Your task to perform on an android device: View the shopping cart on ebay.com. Image 0: 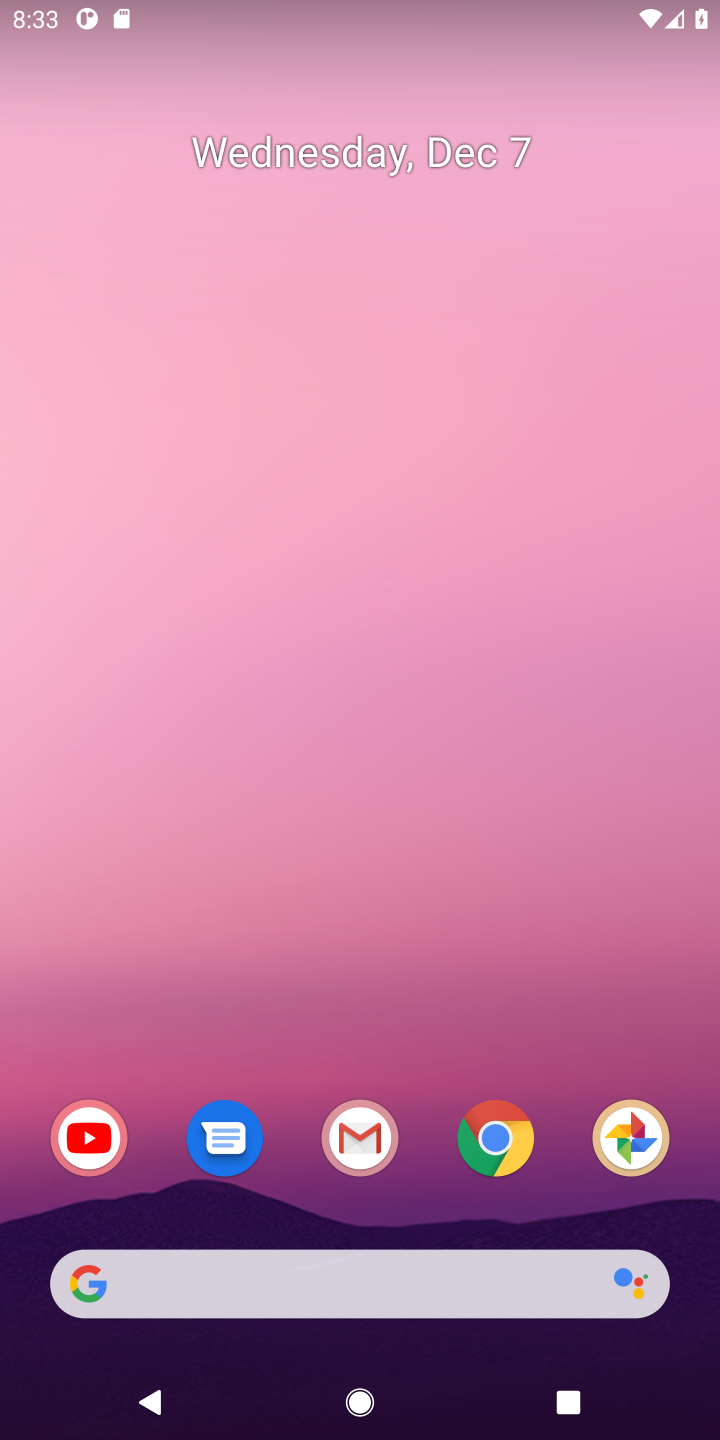
Step 0: press home button
Your task to perform on an android device: View the shopping cart on ebay.com. Image 1: 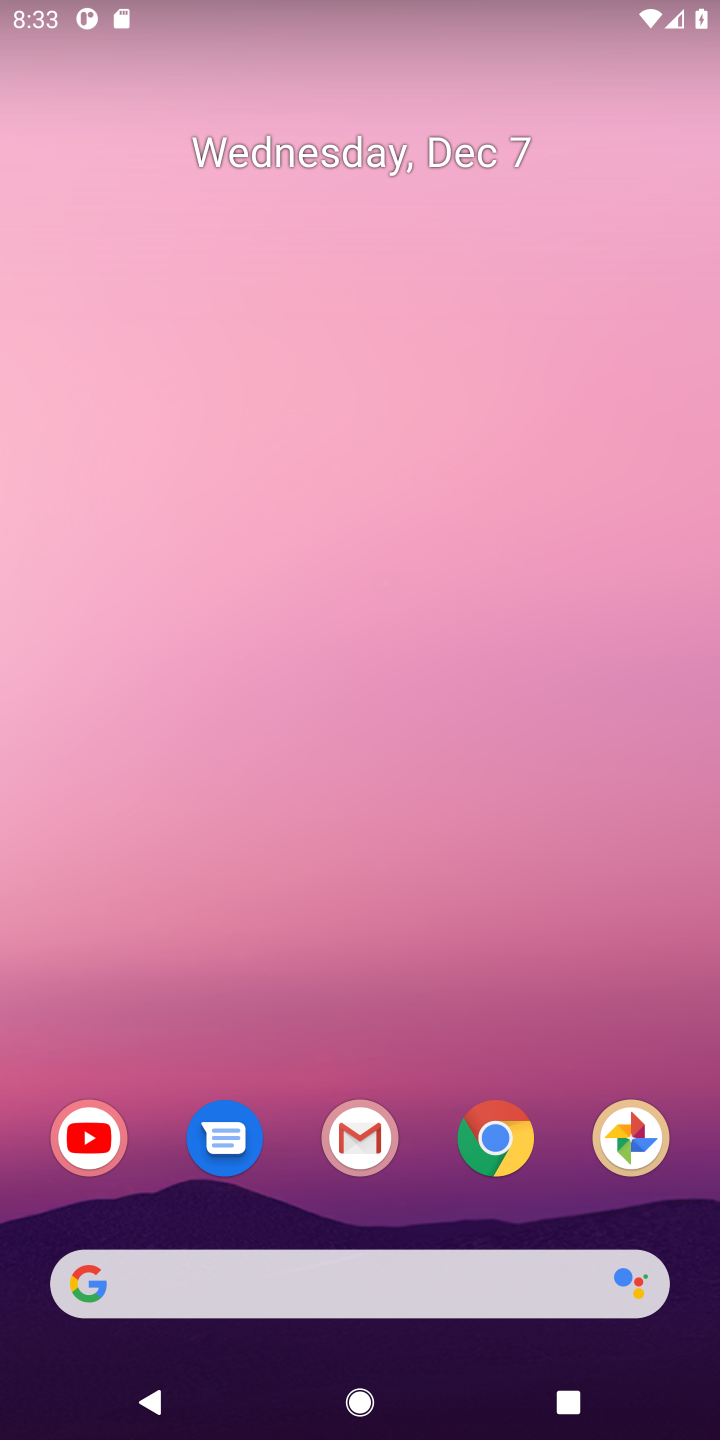
Step 1: click (147, 1280)
Your task to perform on an android device: View the shopping cart on ebay.com. Image 2: 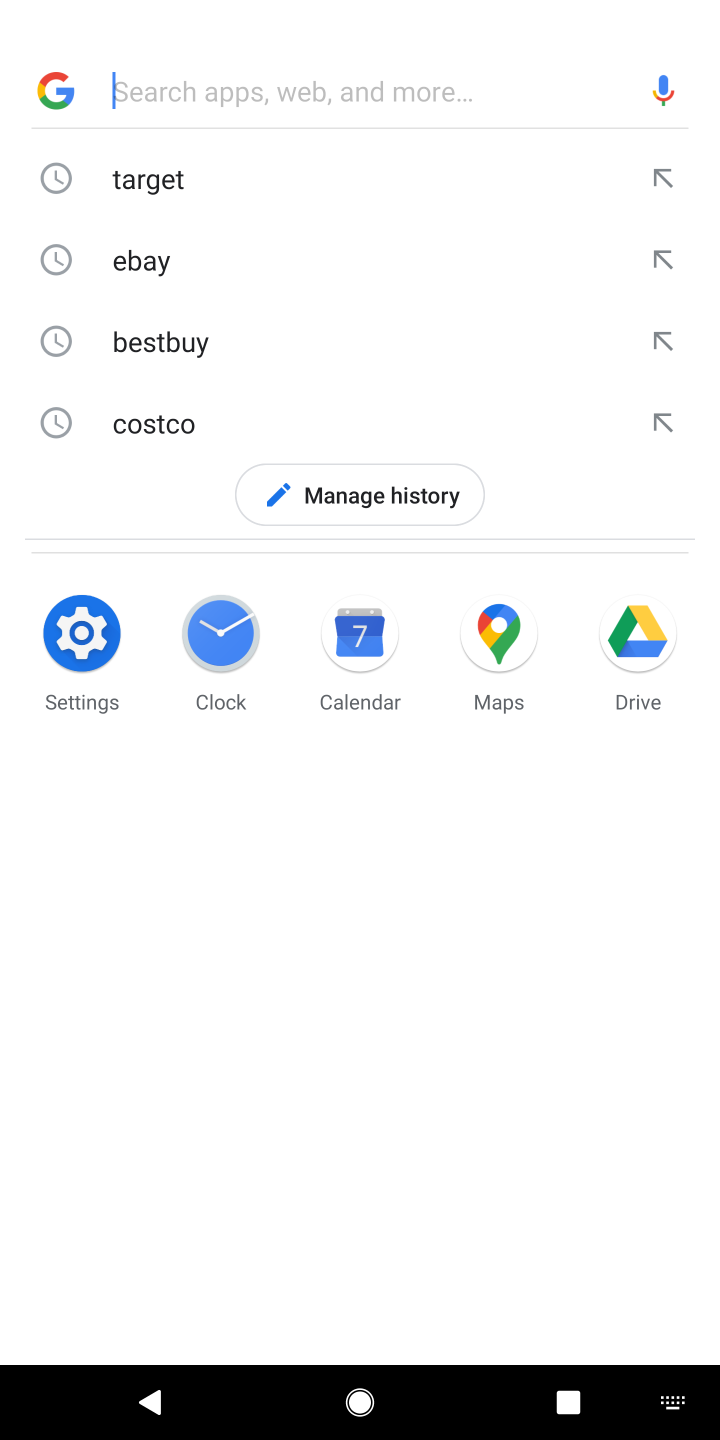
Step 2: press enter
Your task to perform on an android device: View the shopping cart on ebay.com. Image 3: 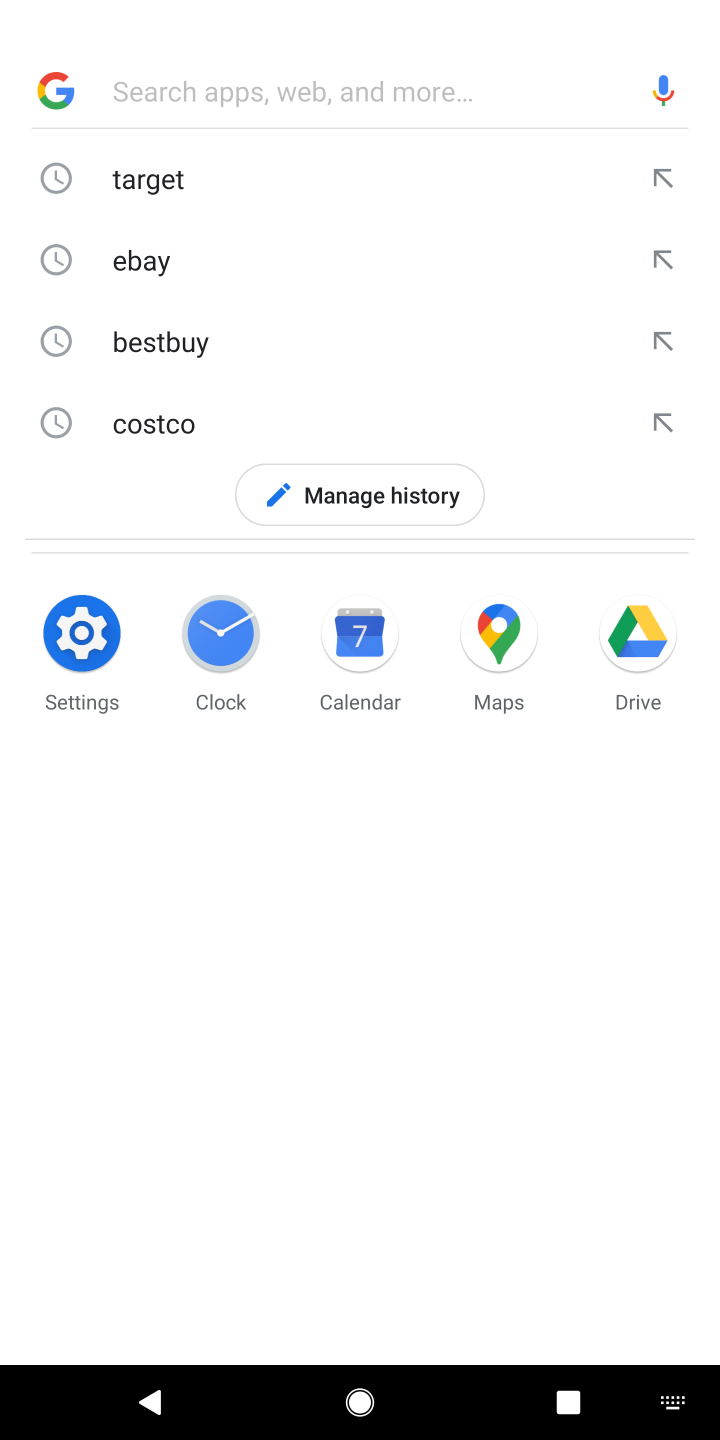
Step 3: type "ebay.com"
Your task to perform on an android device: View the shopping cart on ebay.com. Image 4: 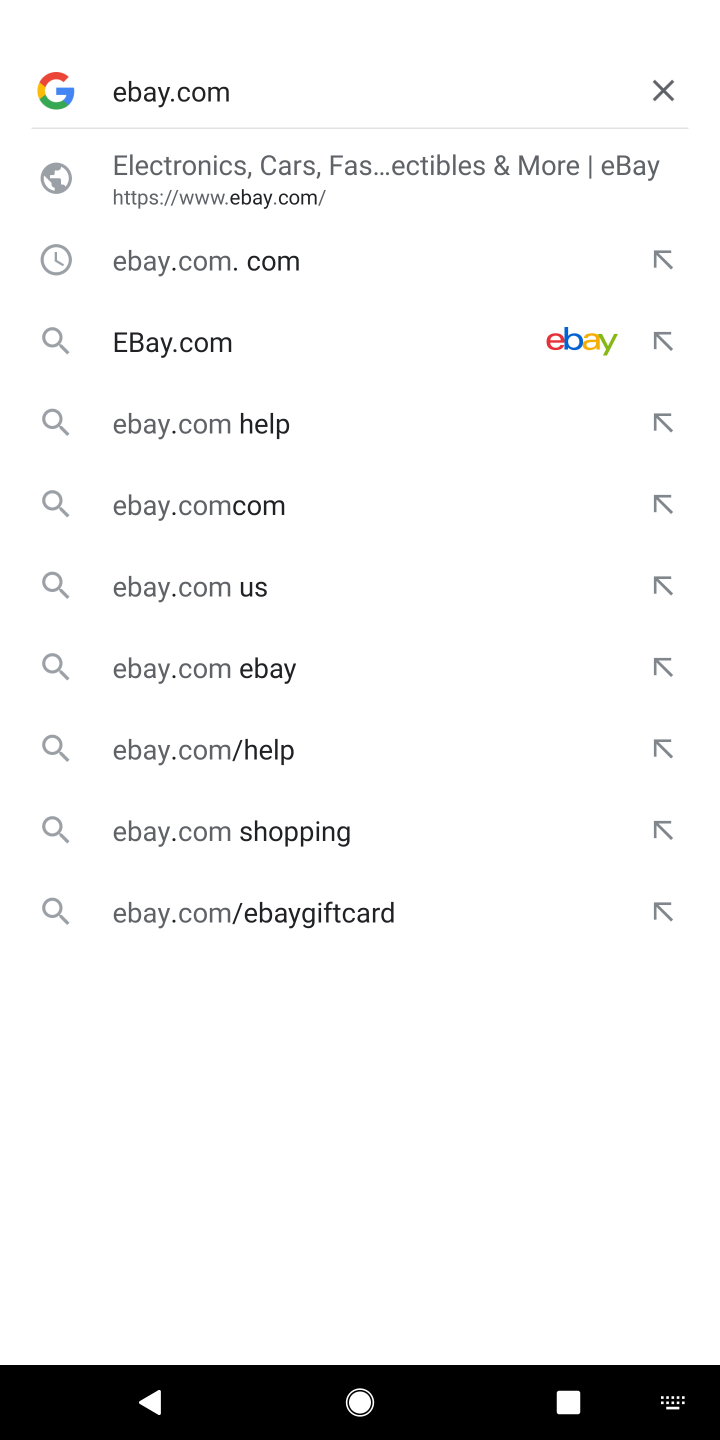
Step 4: press enter
Your task to perform on an android device: View the shopping cart on ebay.com. Image 5: 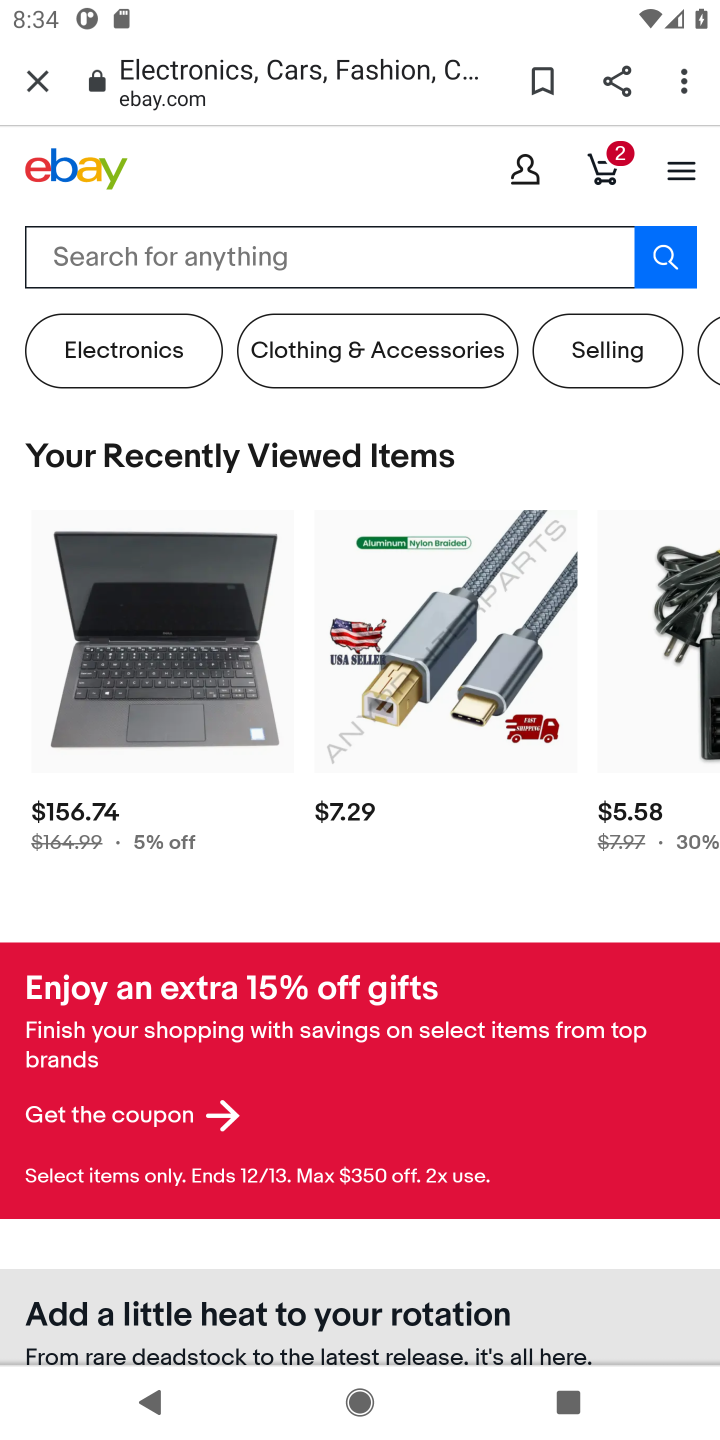
Step 5: click (610, 161)
Your task to perform on an android device: View the shopping cart on ebay.com. Image 6: 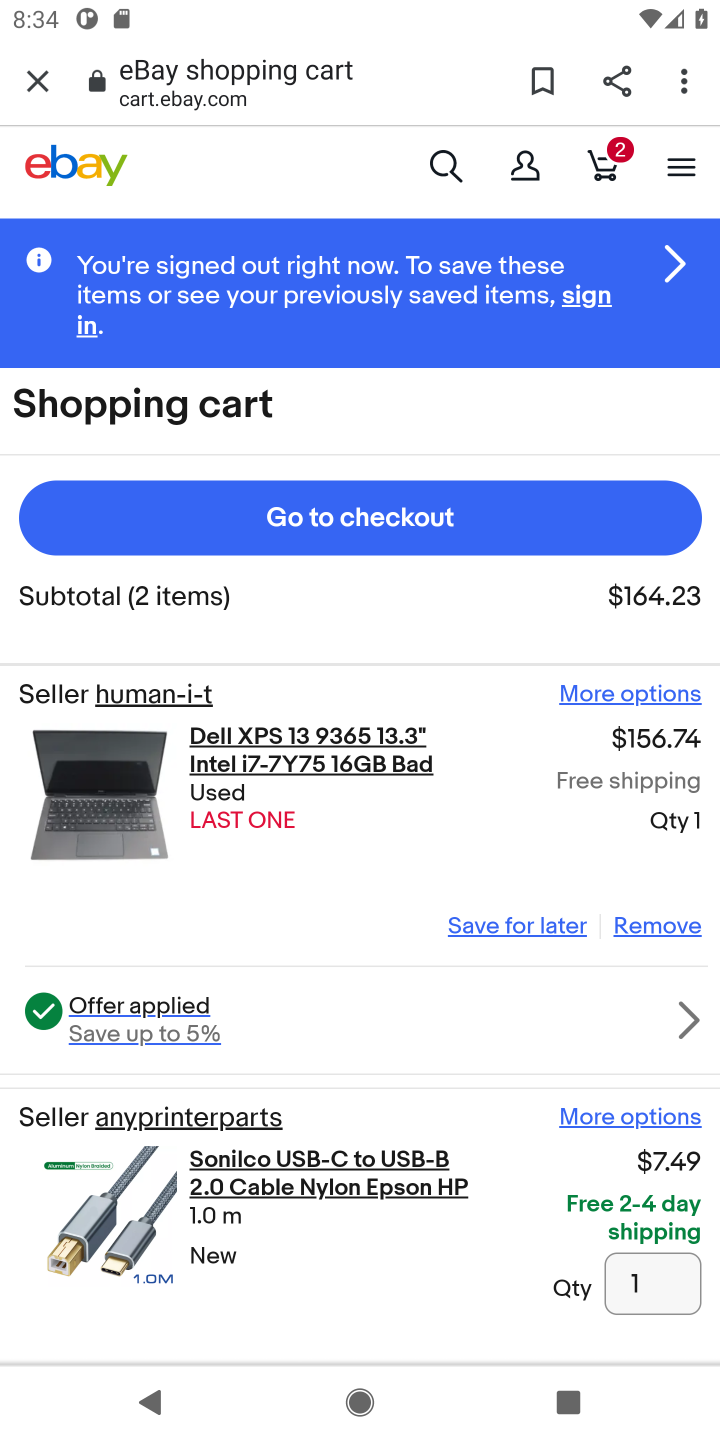
Step 6: task complete